Your task to perform on an android device: Open internet settings Image 0: 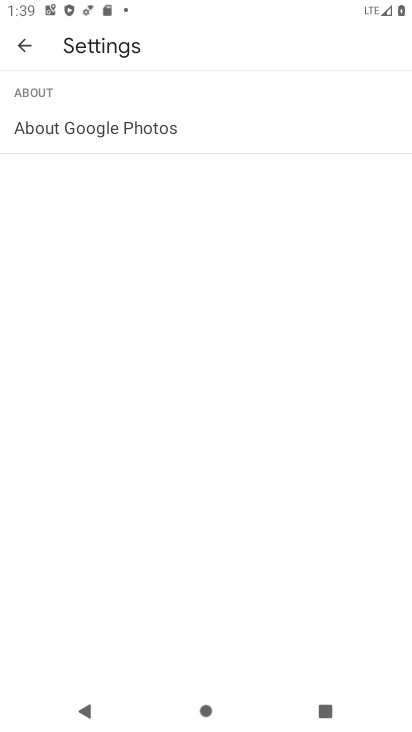
Step 0: press back button
Your task to perform on an android device: Open internet settings Image 1: 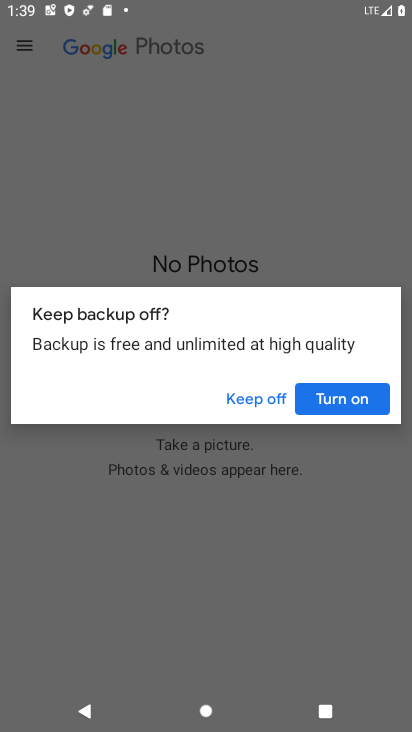
Step 1: press home button
Your task to perform on an android device: Open internet settings Image 2: 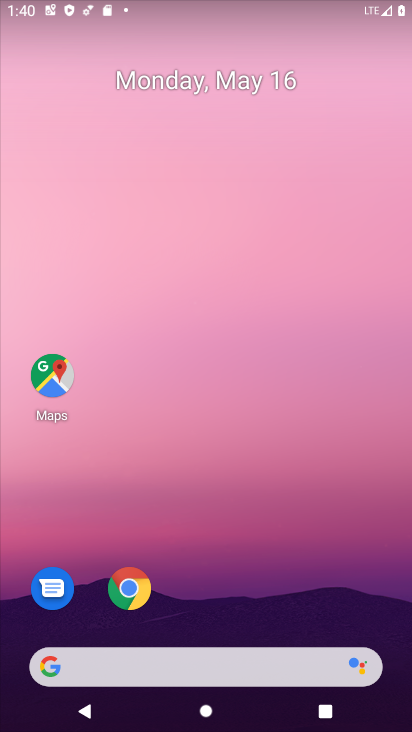
Step 2: drag from (229, 597) to (199, 94)
Your task to perform on an android device: Open internet settings Image 3: 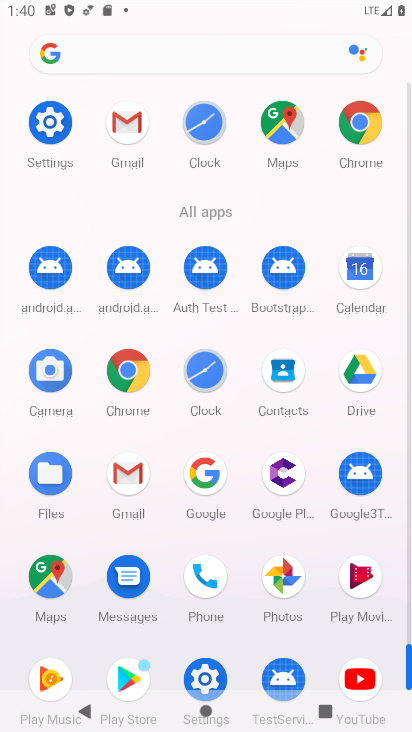
Step 3: click (50, 119)
Your task to perform on an android device: Open internet settings Image 4: 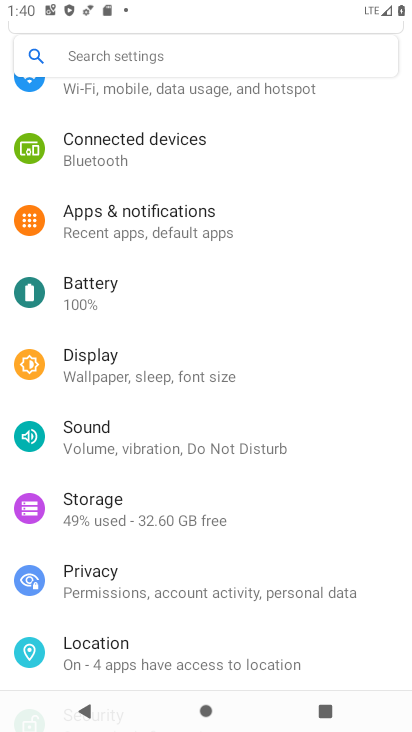
Step 4: drag from (180, 253) to (183, 449)
Your task to perform on an android device: Open internet settings Image 5: 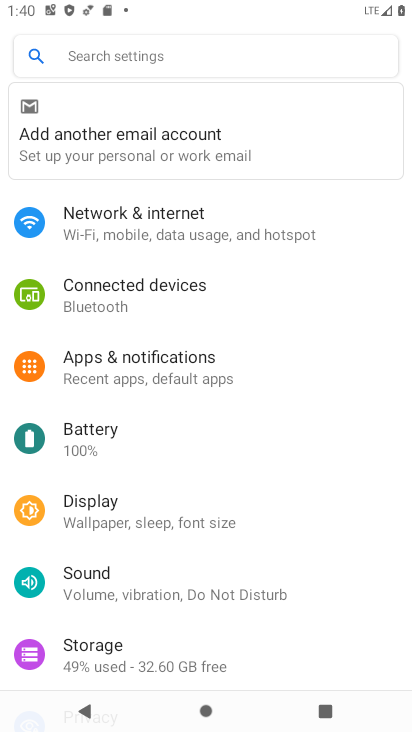
Step 5: click (166, 227)
Your task to perform on an android device: Open internet settings Image 6: 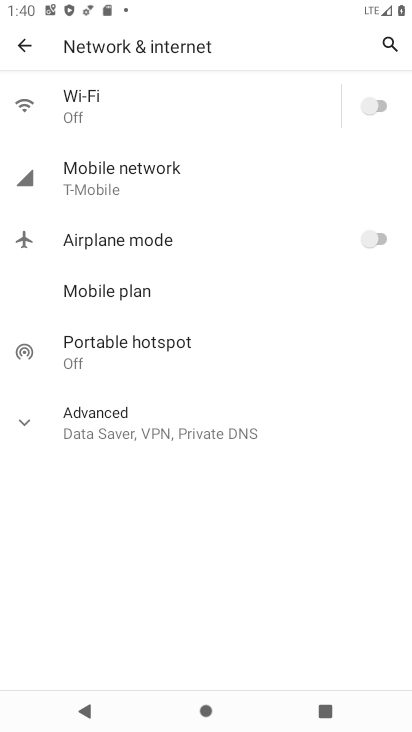
Step 6: task complete